Your task to perform on an android device: Check the news Image 0: 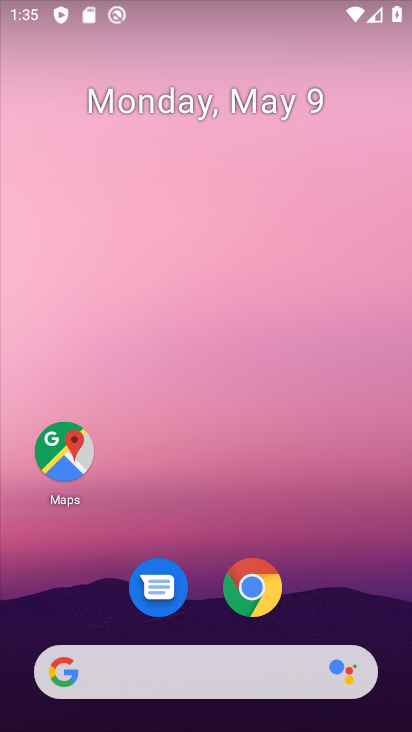
Step 0: click (189, 666)
Your task to perform on an android device: Check the news Image 1: 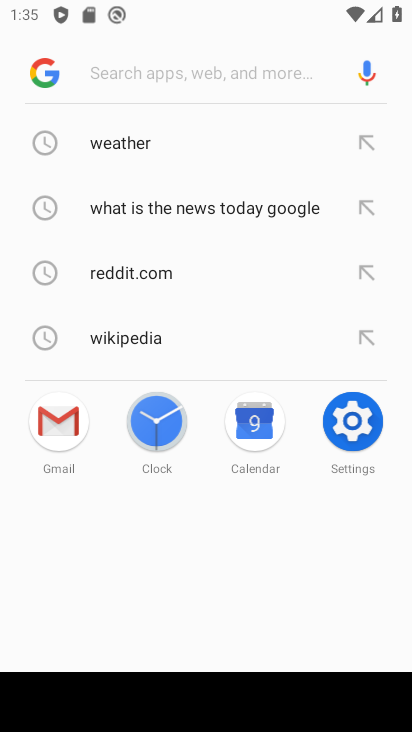
Step 1: type "news"
Your task to perform on an android device: Check the news Image 2: 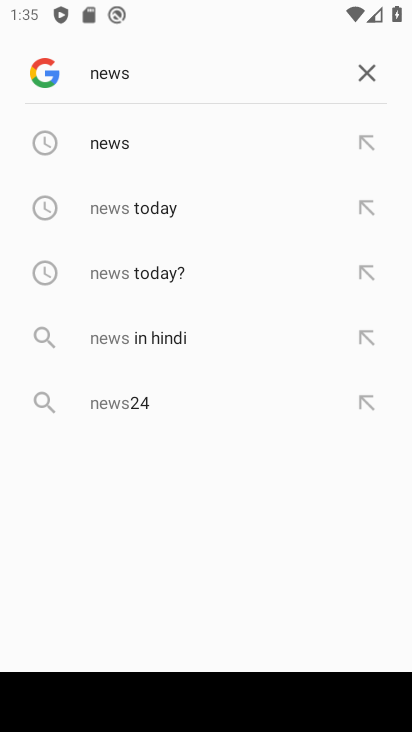
Step 2: click (177, 217)
Your task to perform on an android device: Check the news Image 3: 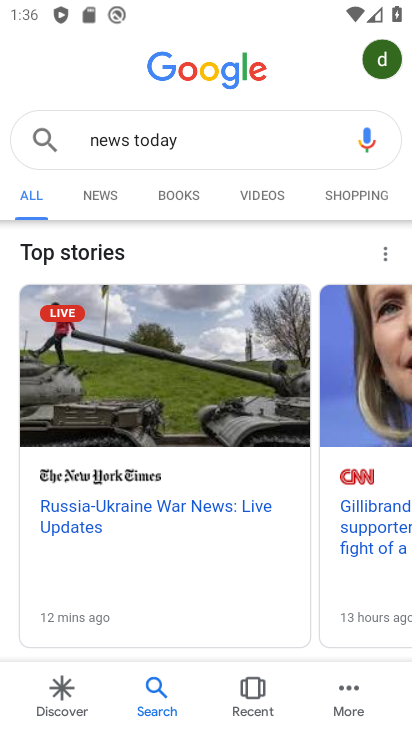
Step 3: task complete